Your task to perform on an android device: Search for Italian restaurants on Maps Image 0: 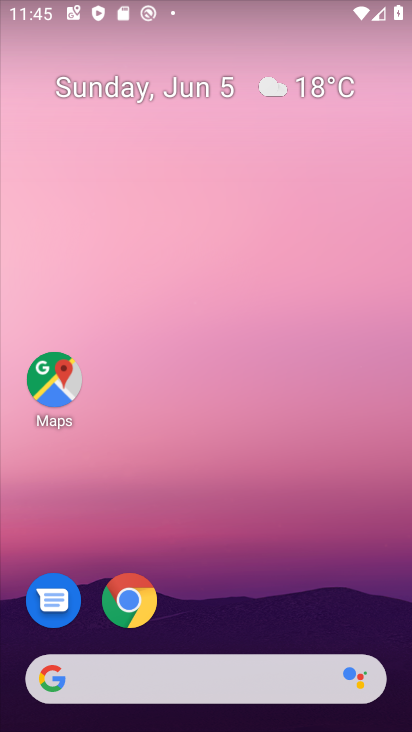
Step 0: click (52, 369)
Your task to perform on an android device: Search for Italian restaurants on Maps Image 1: 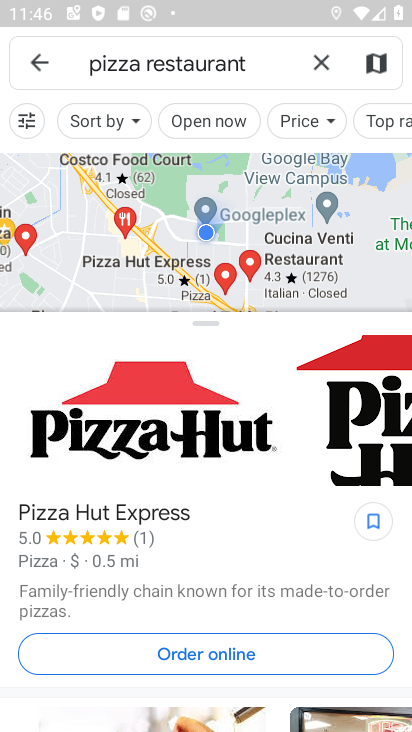
Step 1: click (312, 75)
Your task to perform on an android device: Search for Italian restaurants on Maps Image 2: 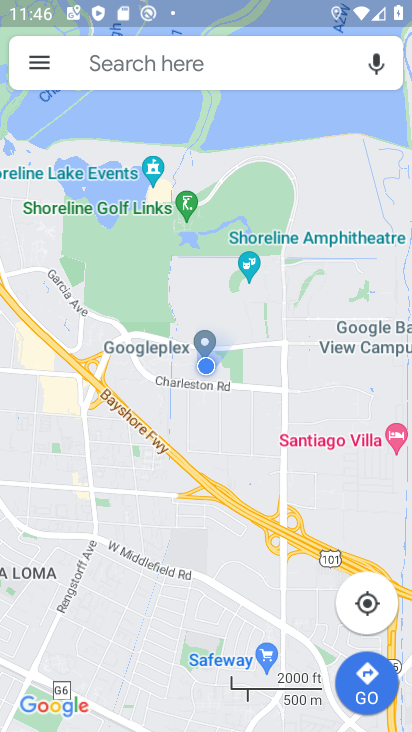
Step 2: click (192, 63)
Your task to perform on an android device: Search for Italian restaurants on Maps Image 3: 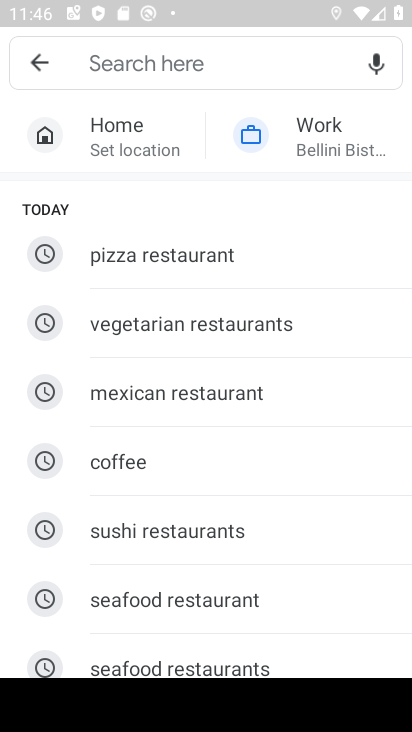
Step 3: drag from (338, 591) to (337, 276)
Your task to perform on an android device: Search for Italian restaurants on Maps Image 4: 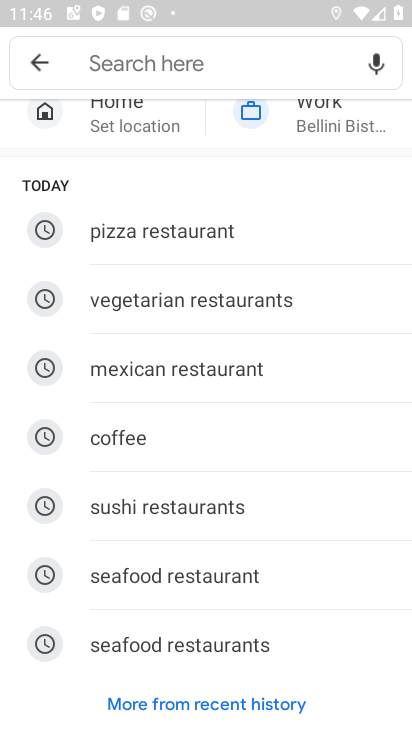
Step 4: type "italian restaurants"
Your task to perform on an android device: Search for Italian restaurants on Maps Image 5: 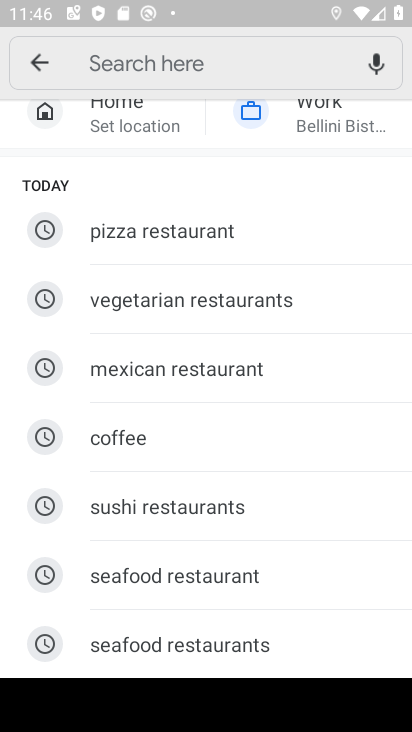
Step 5: click (184, 60)
Your task to perform on an android device: Search for Italian restaurants on Maps Image 6: 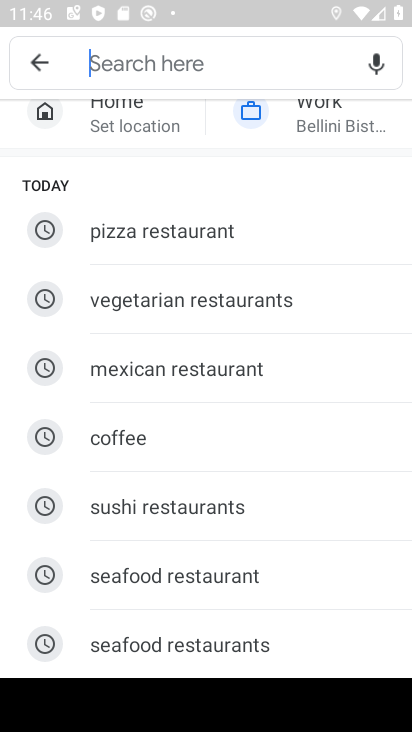
Step 6: type "Italian restaurants"
Your task to perform on an android device: Search for Italian restaurants on Maps Image 7: 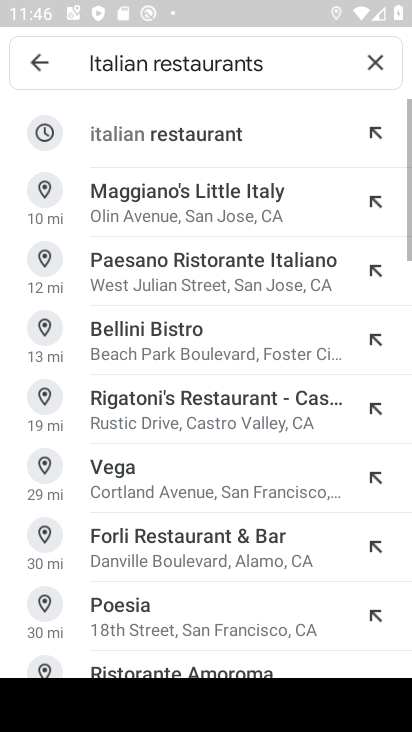
Step 7: click (141, 135)
Your task to perform on an android device: Search for Italian restaurants on Maps Image 8: 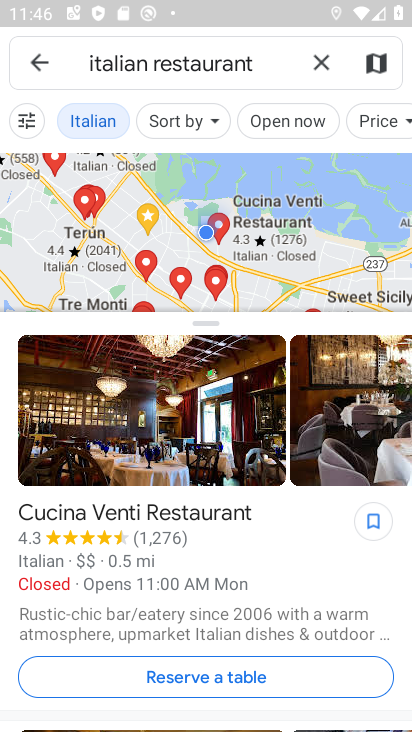
Step 8: task complete